Your task to perform on an android device: Go to calendar. Show me events next week Image 0: 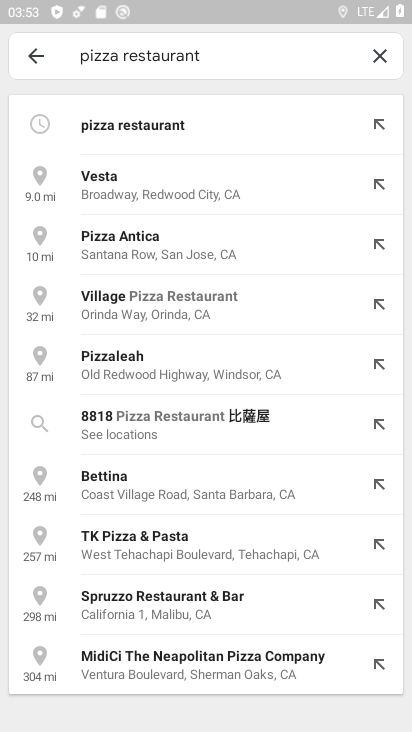
Step 0: press home button
Your task to perform on an android device: Go to calendar. Show me events next week Image 1: 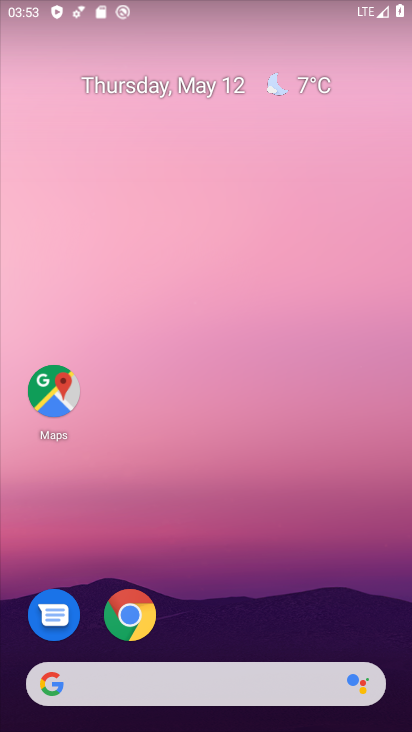
Step 1: drag from (339, 604) to (327, 108)
Your task to perform on an android device: Go to calendar. Show me events next week Image 2: 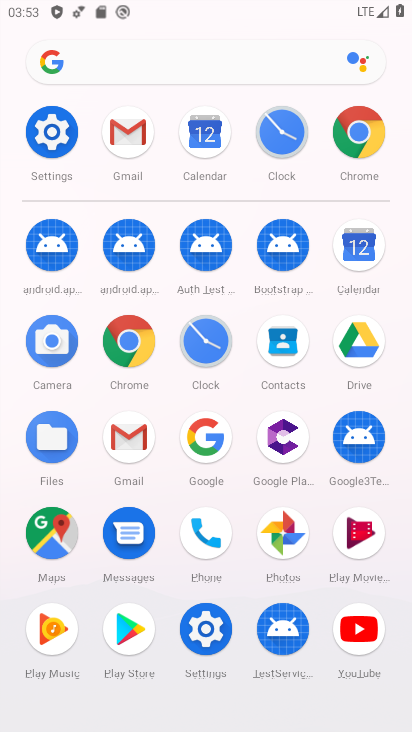
Step 2: click (205, 132)
Your task to perform on an android device: Go to calendar. Show me events next week Image 3: 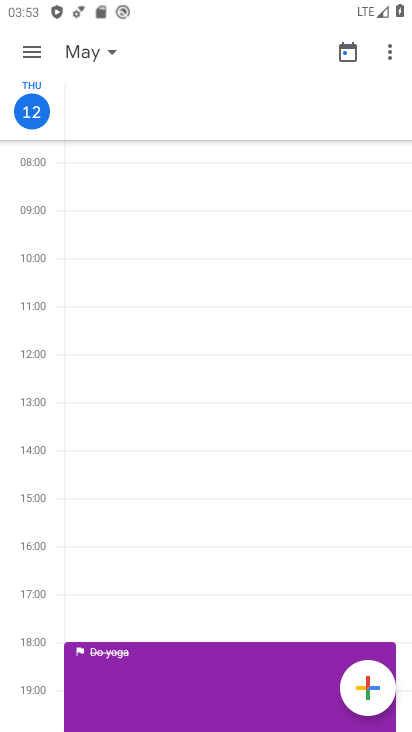
Step 3: click (38, 48)
Your task to perform on an android device: Go to calendar. Show me events next week Image 4: 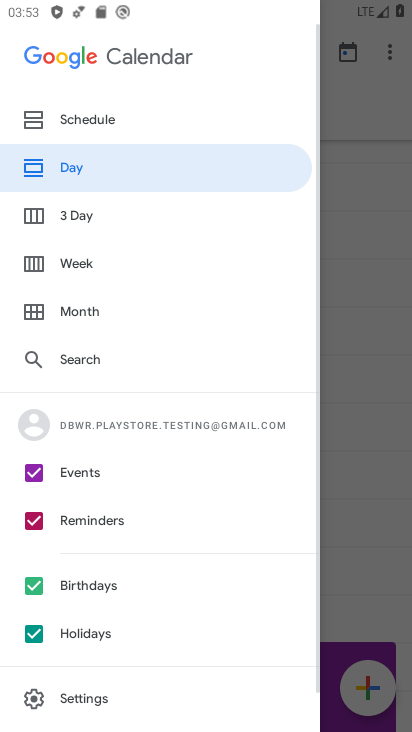
Step 4: click (83, 252)
Your task to perform on an android device: Go to calendar. Show me events next week Image 5: 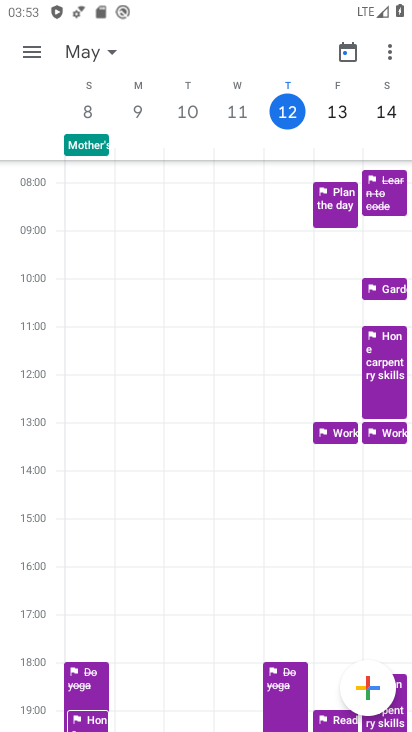
Step 5: click (94, 47)
Your task to perform on an android device: Go to calendar. Show me events next week Image 6: 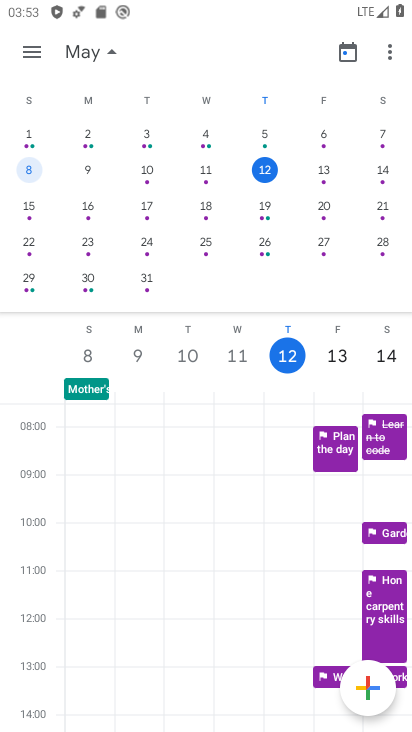
Step 6: click (87, 208)
Your task to perform on an android device: Go to calendar. Show me events next week Image 7: 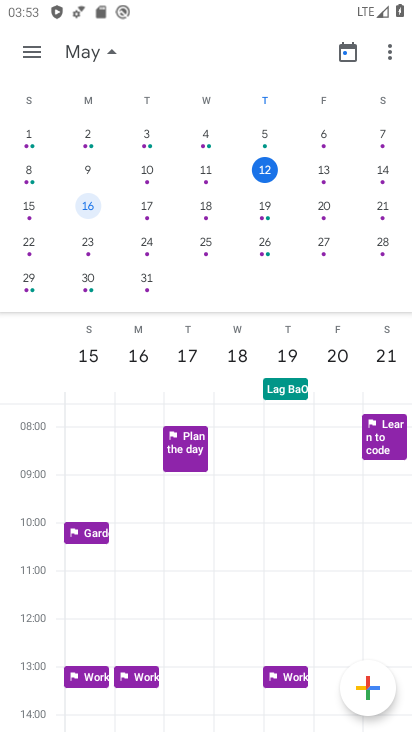
Step 7: task complete